Your task to perform on an android device: Go to Google maps Image 0: 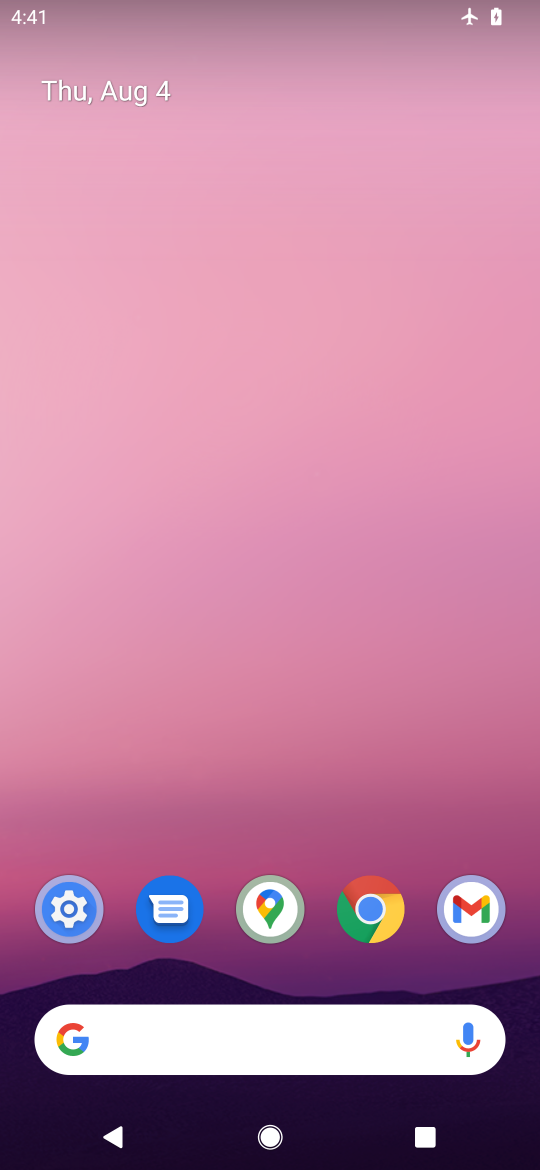
Step 0: press home button
Your task to perform on an android device: Go to Google maps Image 1: 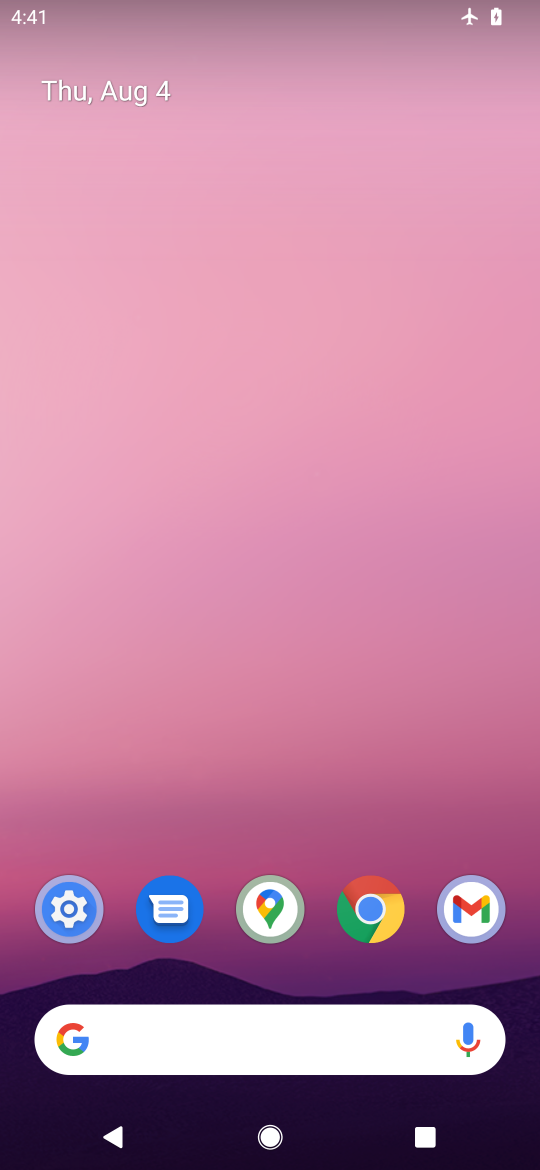
Step 1: drag from (279, 805) to (279, 74)
Your task to perform on an android device: Go to Google maps Image 2: 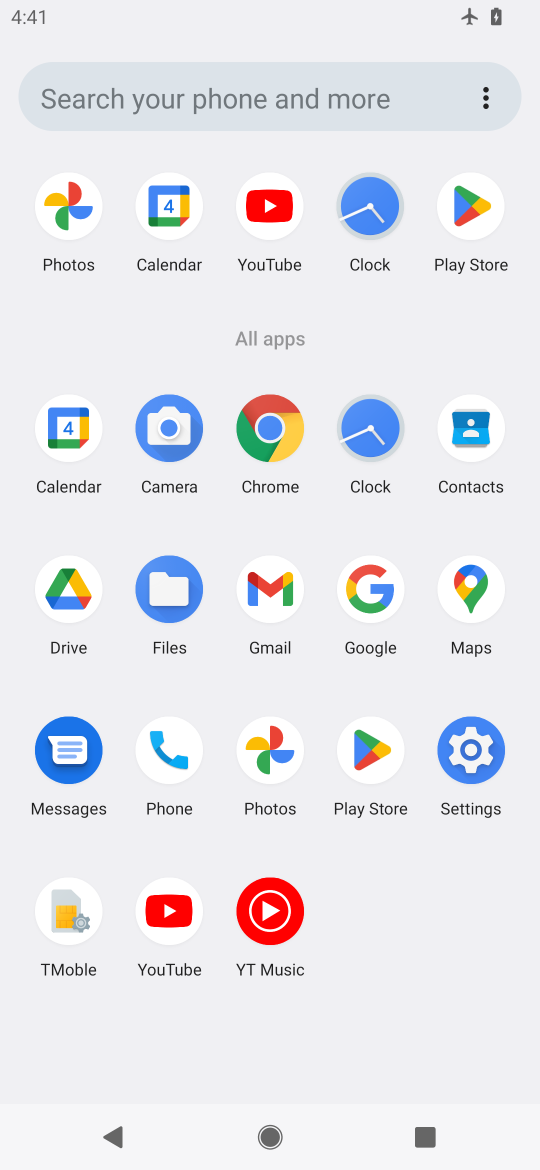
Step 2: click (455, 594)
Your task to perform on an android device: Go to Google maps Image 3: 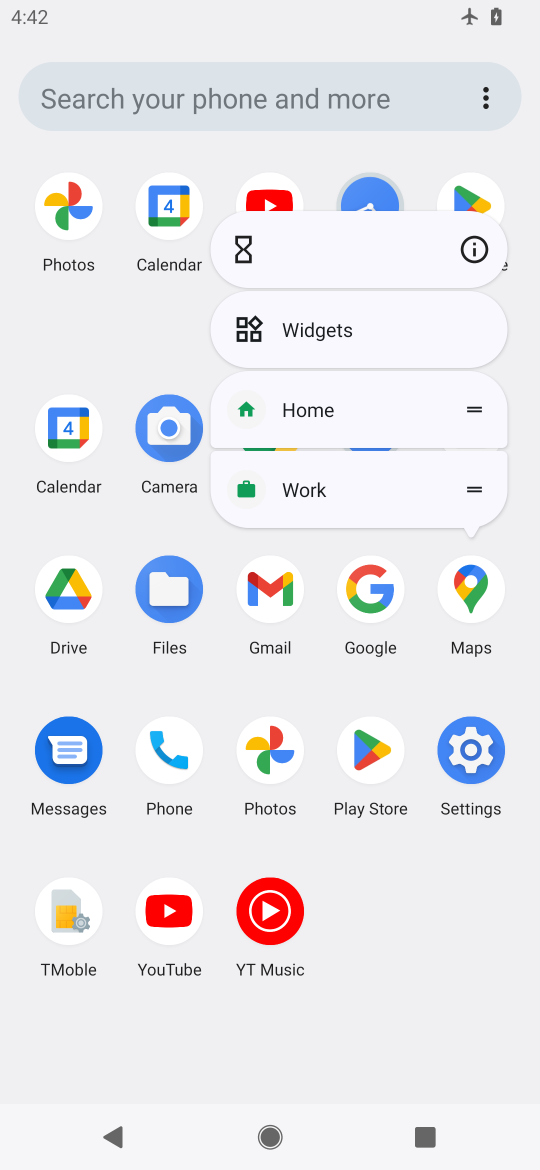
Step 3: click (484, 595)
Your task to perform on an android device: Go to Google maps Image 4: 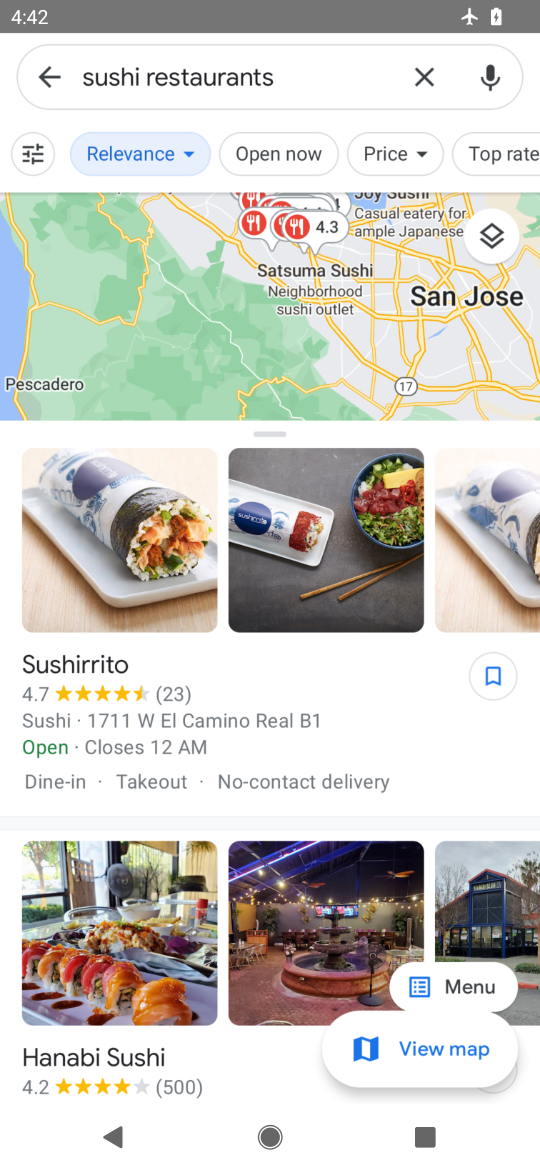
Step 4: click (484, 595)
Your task to perform on an android device: Go to Google maps Image 5: 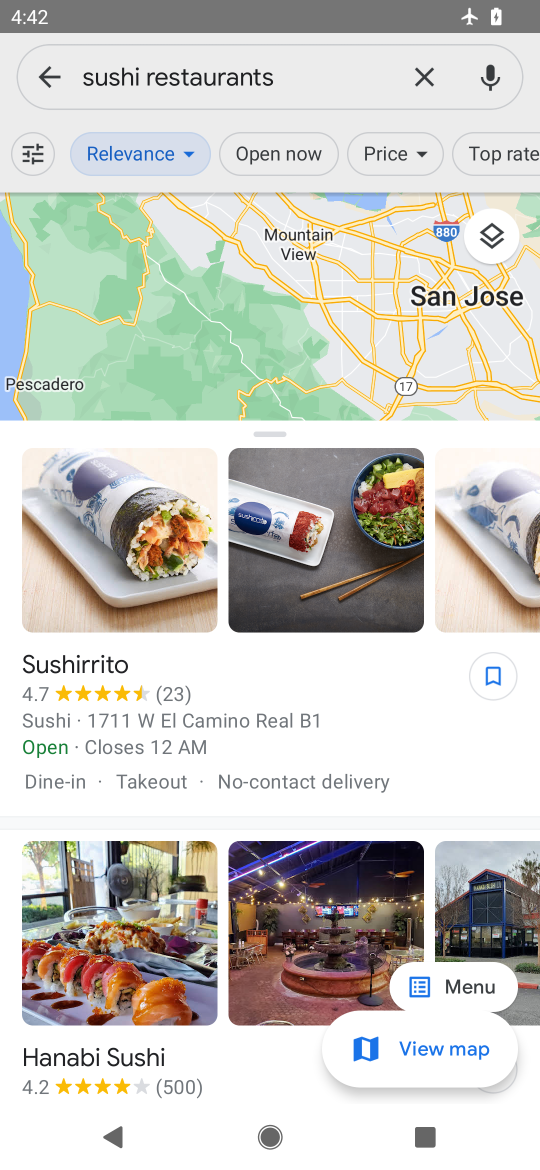
Step 5: click (42, 73)
Your task to perform on an android device: Go to Google maps Image 6: 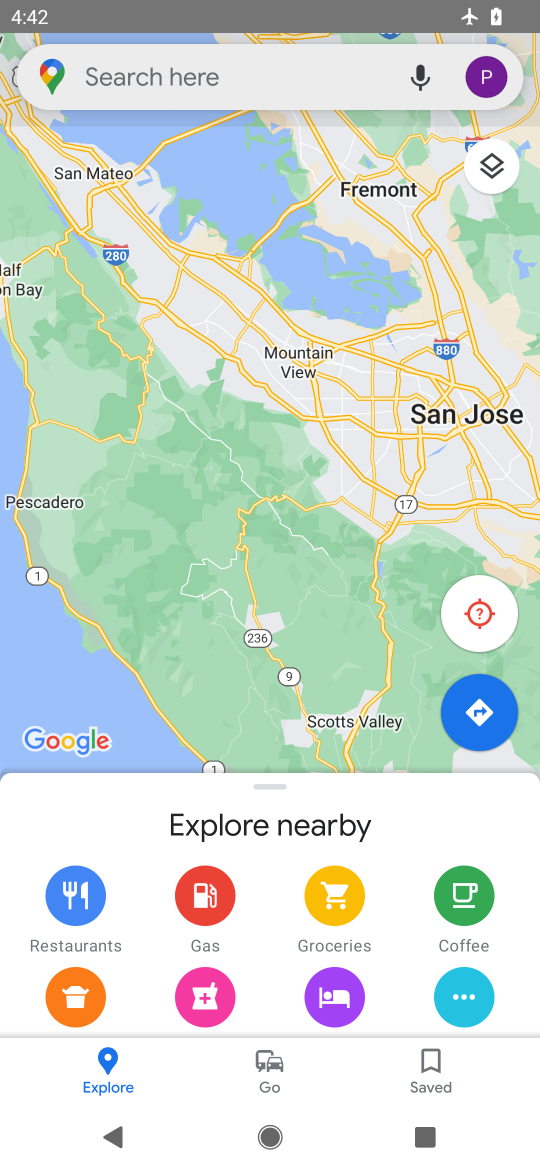
Step 6: task complete